Your task to perform on an android device: Open Android settings Image 0: 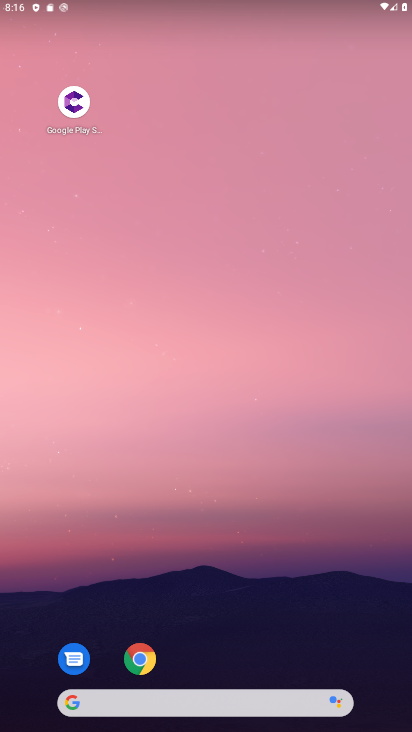
Step 0: drag from (206, 563) to (368, 17)
Your task to perform on an android device: Open Android settings Image 1: 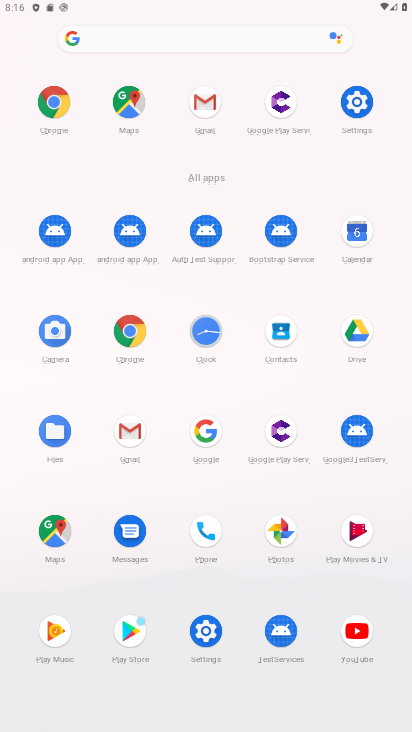
Step 1: click (203, 634)
Your task to perform on an android device: Open Android settings Image 2: 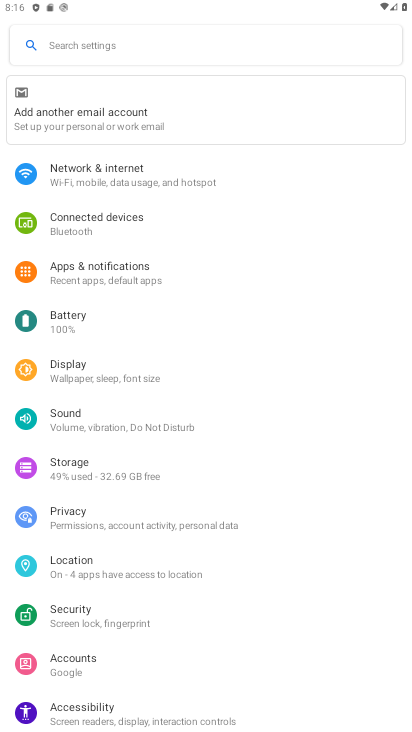
Step 2: drag from (214, 599) to (241, 108)
Your task to perform on an android device: Open Android settings Image 3: 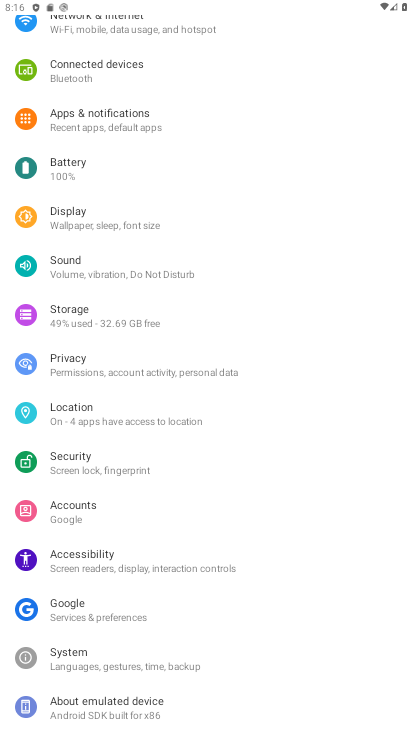
Step 3: click (125, 707)
Your task to perform on an android device: Open Android settings Image 4: 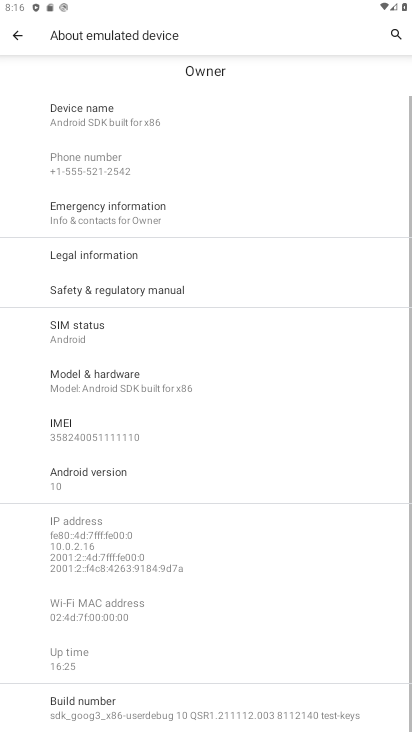
Step 4: click (98, 481)
Your task to perform on an android device: Open Android settings Image 5: 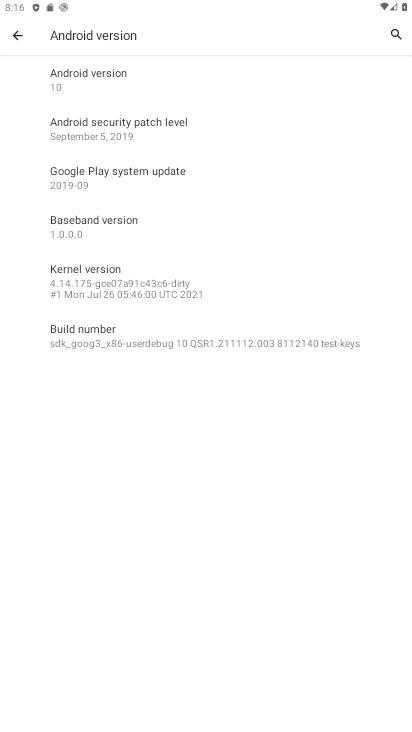
Step 5: click (112, 73)
Your task to perform on an android device: Open Android settings Image 6: 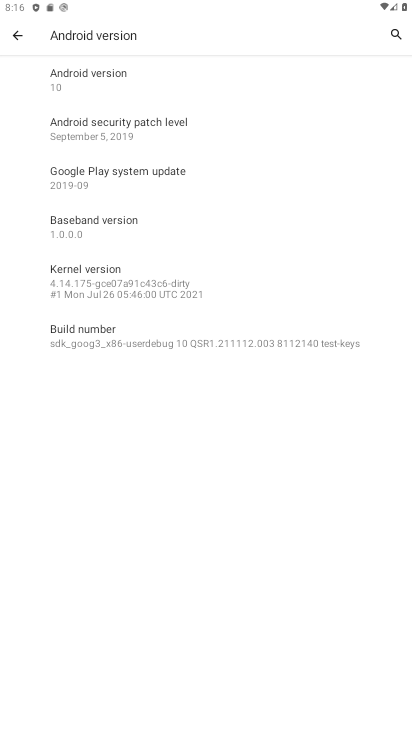
Step 6: task complete